Your task to perform on an android device: toggle javascript in the chrome app Image 0: 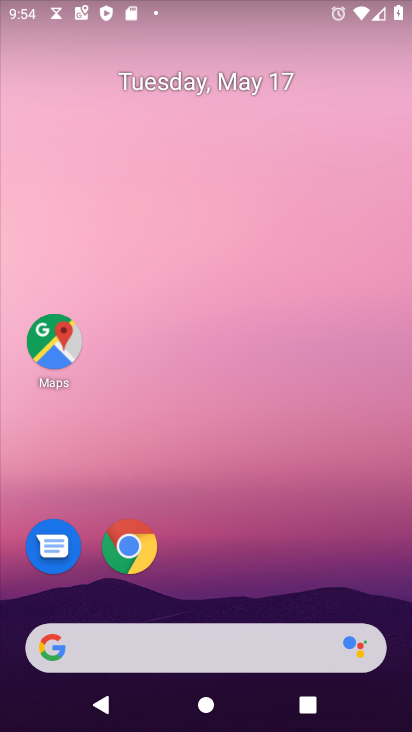
Step 0: click (126, 544)
Your task to perform on an android device: toggle javascript in the chrome app Image 1: 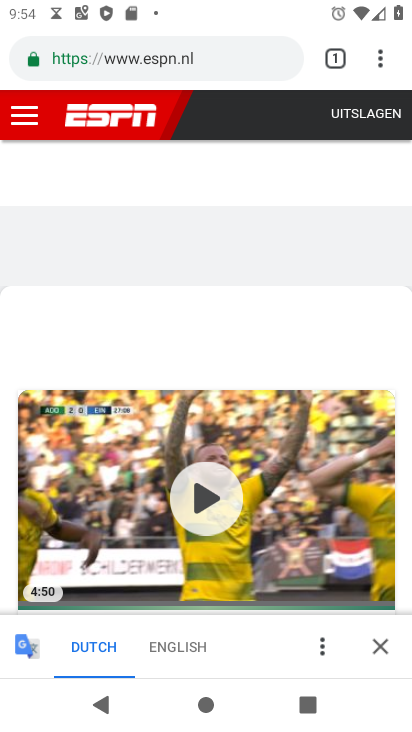
Step 1: click (371, 69)
Your task to perform on an android device: toggle javascript in the chrome app Image 2: 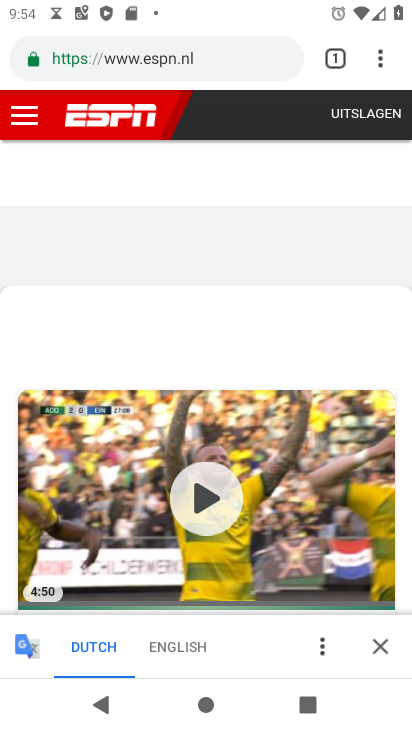
Step 2: click (380, 73)
Your task to perform on an android device: toggle javascript in the chrome app Image 3: 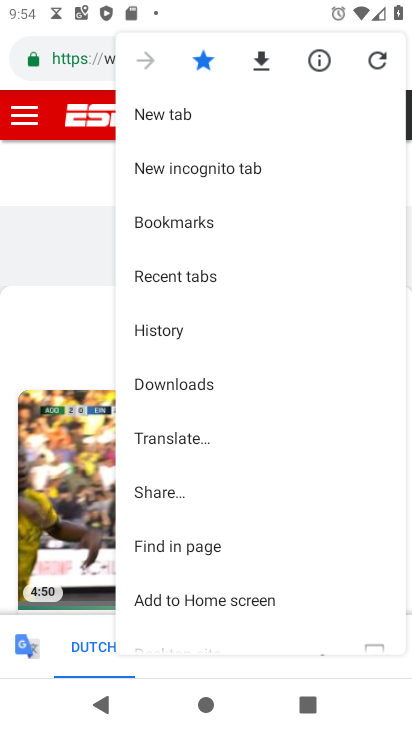
Step 3: drag from (203, 554) to (222, 267)
Your task to perform on an android device: toggle javascript in the chrome app Image 4: 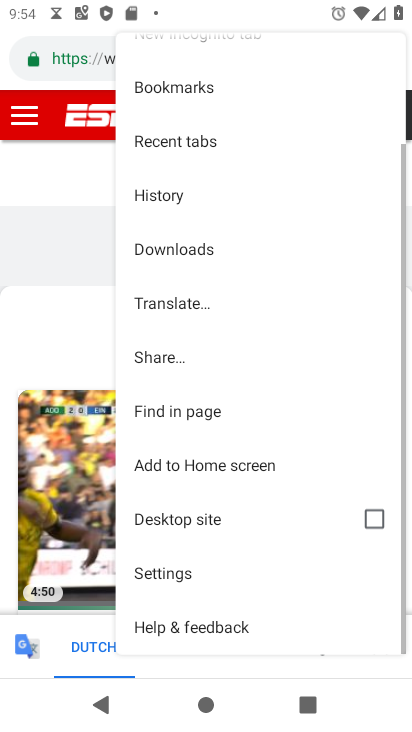
Step 4: click (202, 580)
Your task to perform on an android device: toggle javascript in the chrome app Image 5: 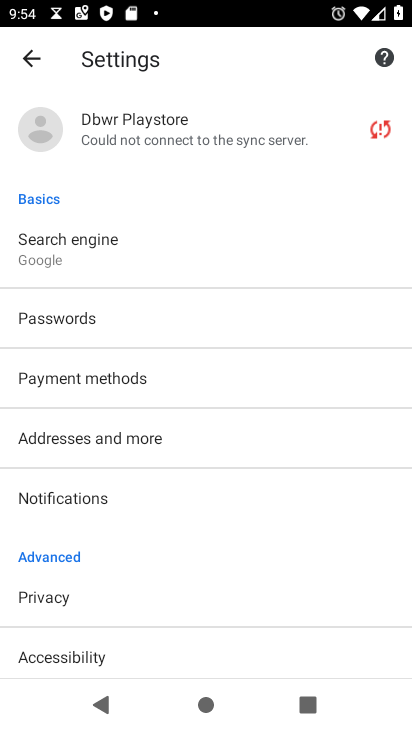
Step 5: drag from (240, 563) to (301, 276)
Your task to perform on an android device: toggle javascript in the chrome app Image 6: 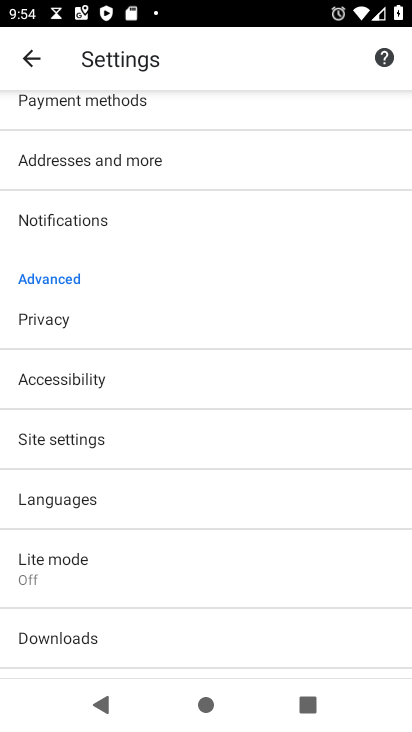
Step 6: click (124, 442)
Your task to perform on an android device: toggle javascript in the chrome app Image 7: 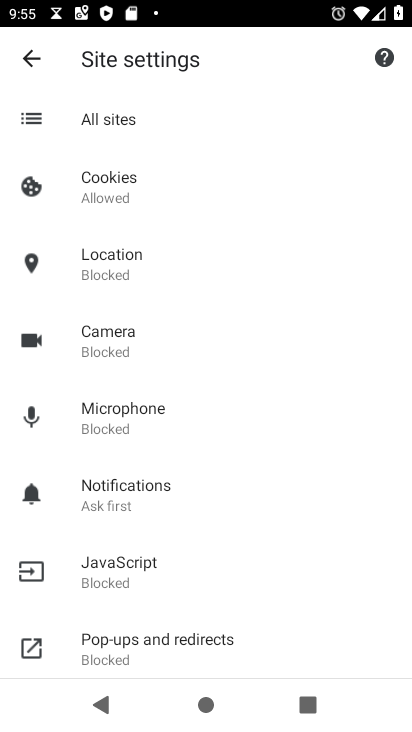
Step 7: click (176, 567)
Your task to perform on an android device: toggle javascript in the chrome app Image 8: 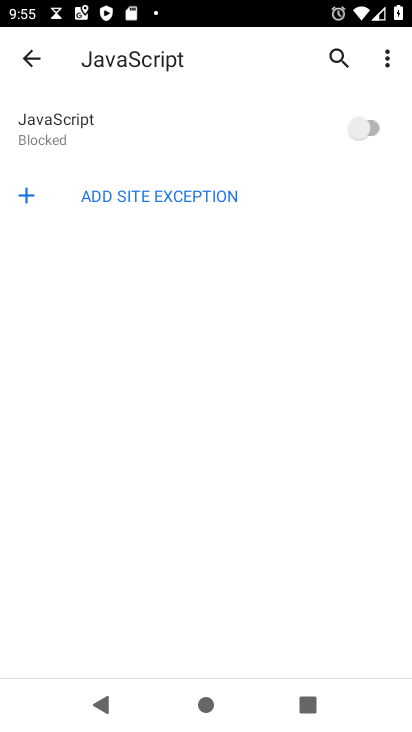
Step 8: click (365, 119)
Your task to perform on an android device: toggle javascript in the chrome app Image 9: 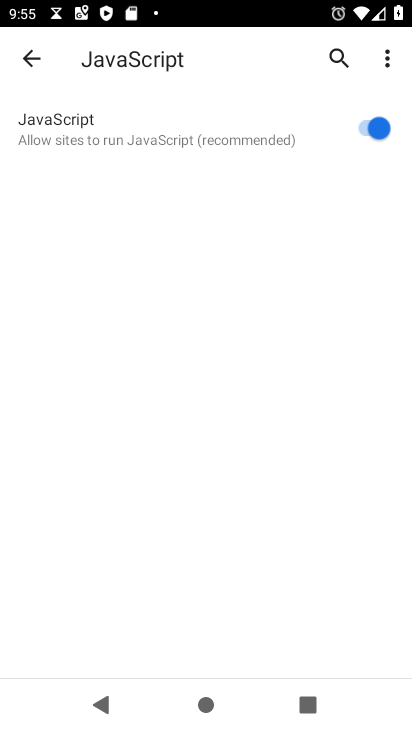
Step 9: task complete